Your task to perform on an android device: Check the weather Image 0: 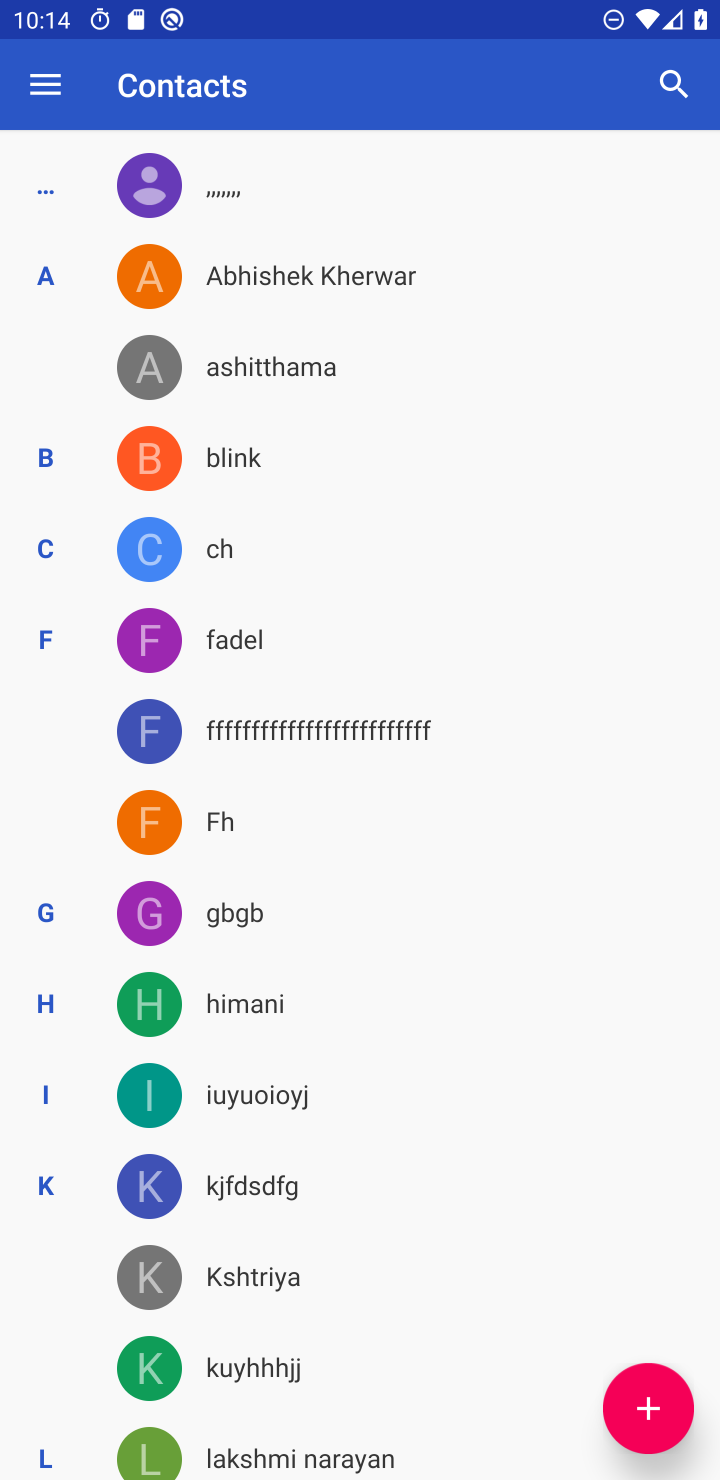
Step 0: press home button
Your task to perform on an android device: Check the weather Image 1: 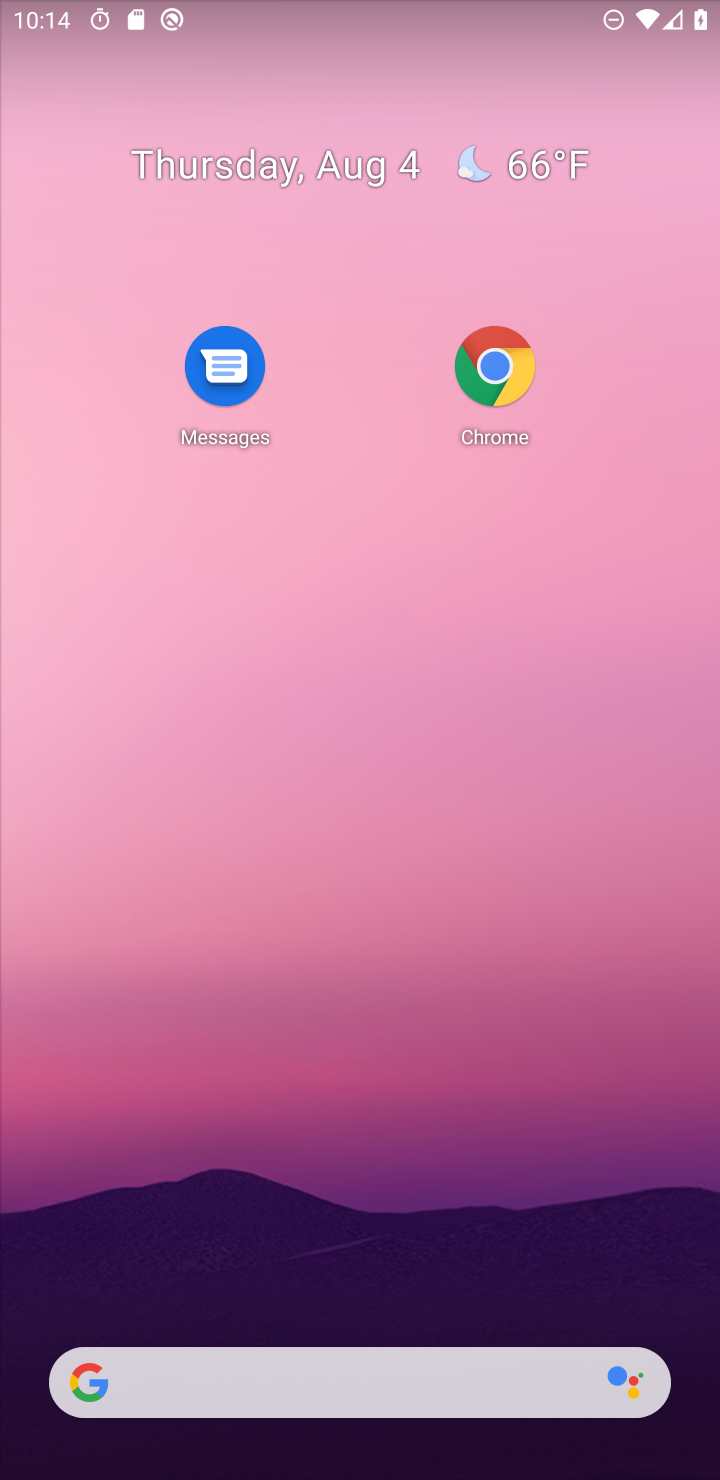
Step 1: click (245, 1406)
Your task to perform on an android device: Check the weather Image 2: 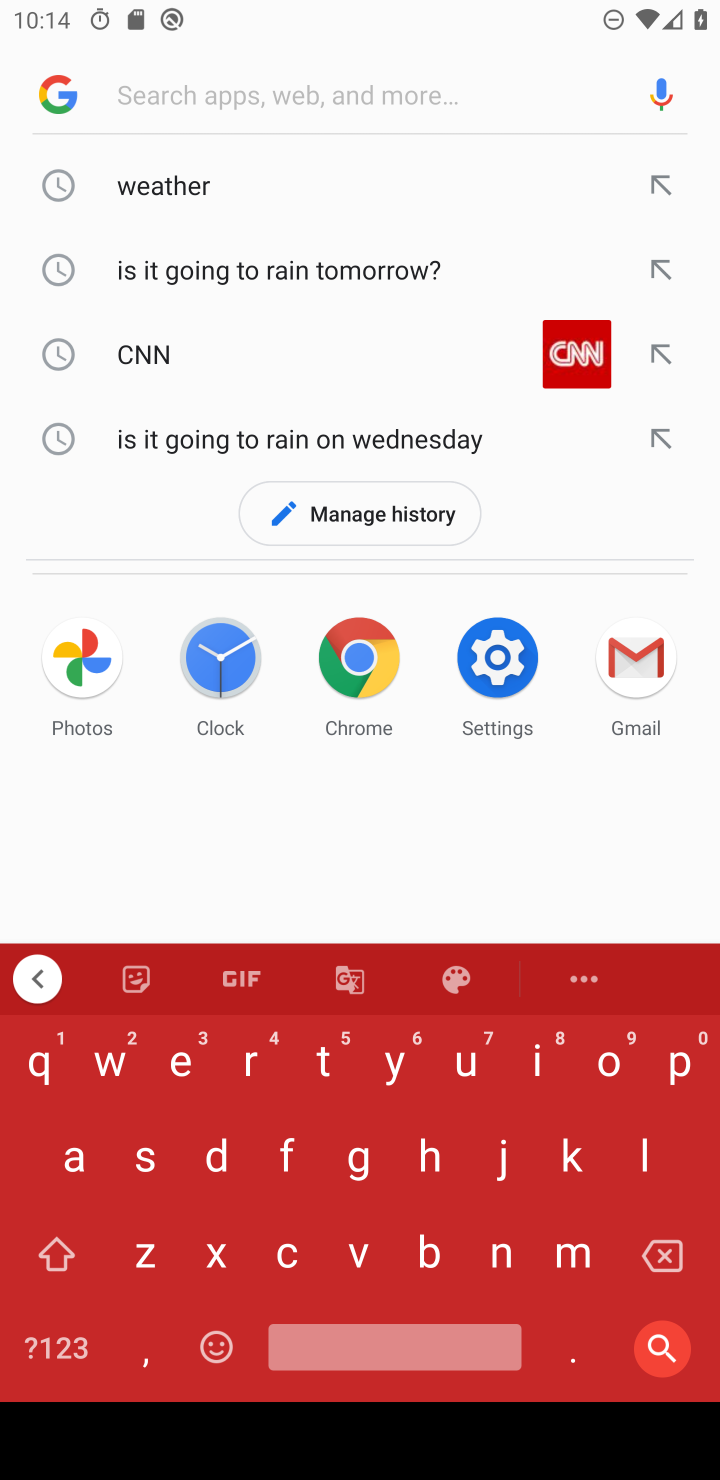
Step 2: click (201, 189)
Your task to perform on an android device: Check the weather Image 3: 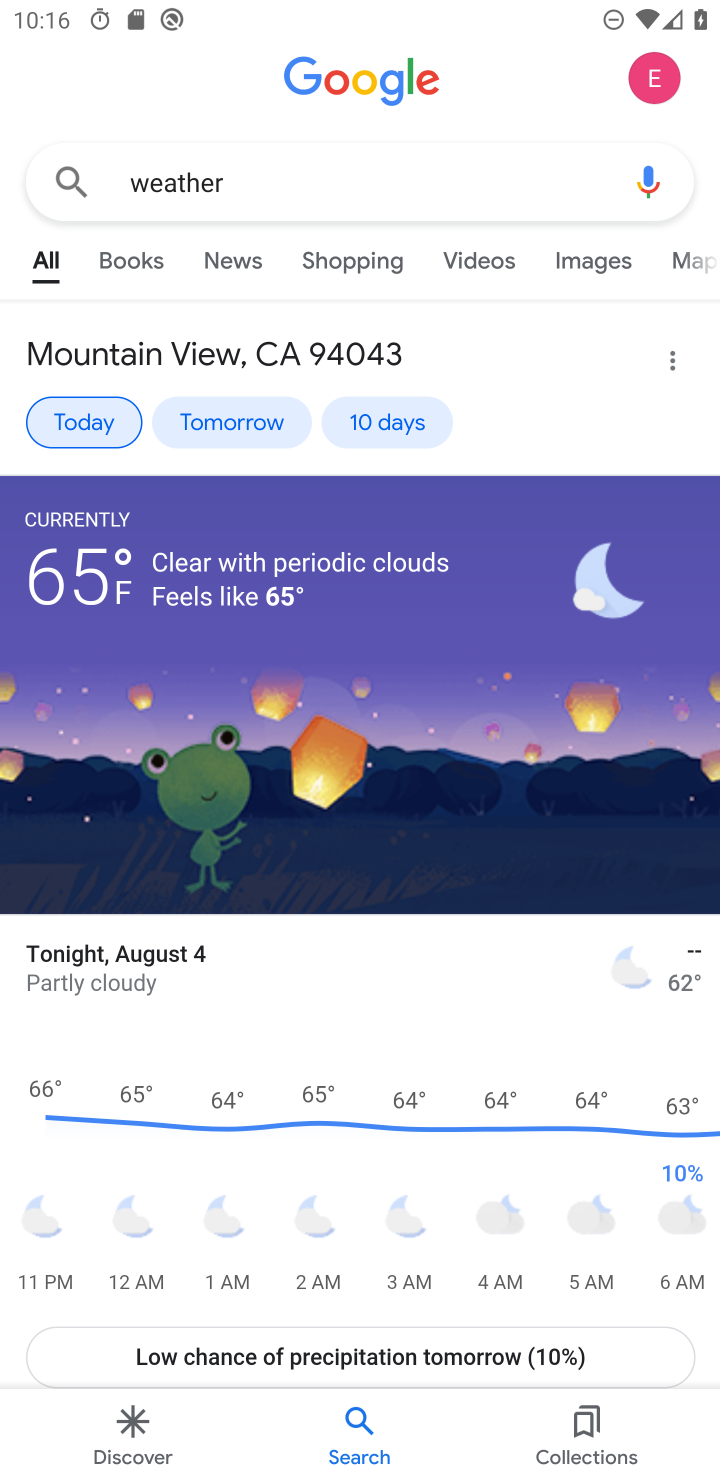
Step 3: task complete